Your task to perform on an android device: Open Chrome and go to settings Image 0: 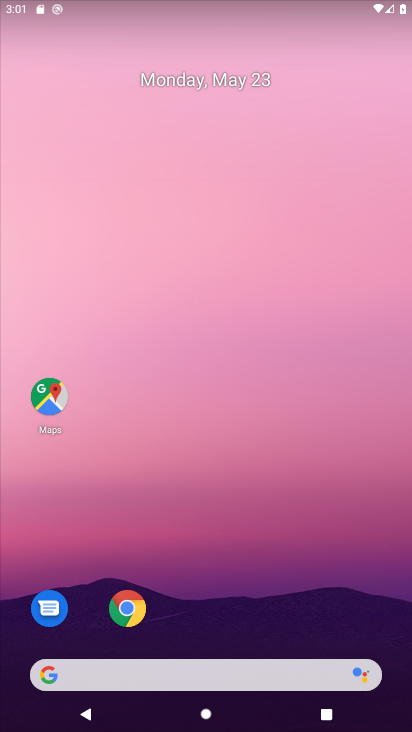
Step 0: click (140, 609)
Your task to perform on an android device: Open Chrome and go to settings Image 1: 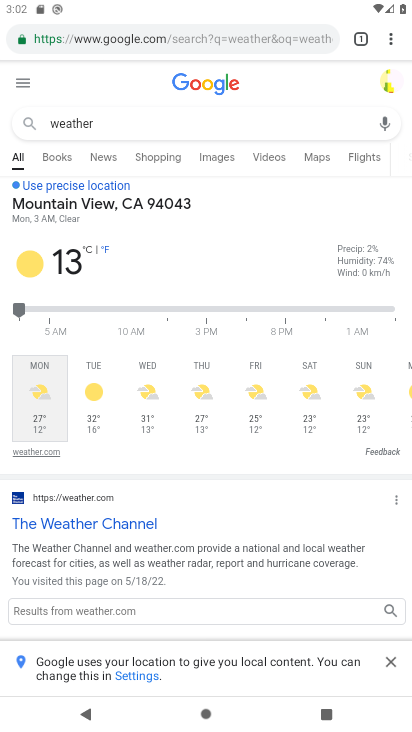
Step 1: click (387, 40)
Your task to perform on an android device: Open Chrome and go to settings Image 2: 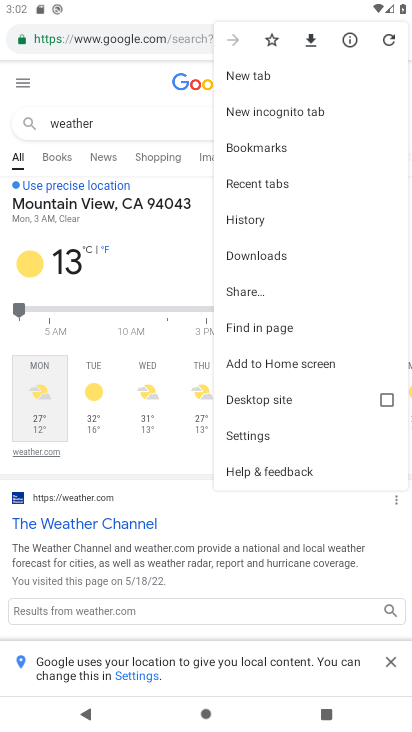
Step 2: click (308, 437)
Your task to perform on an android device: Open Chrome and go to settings Image 3: 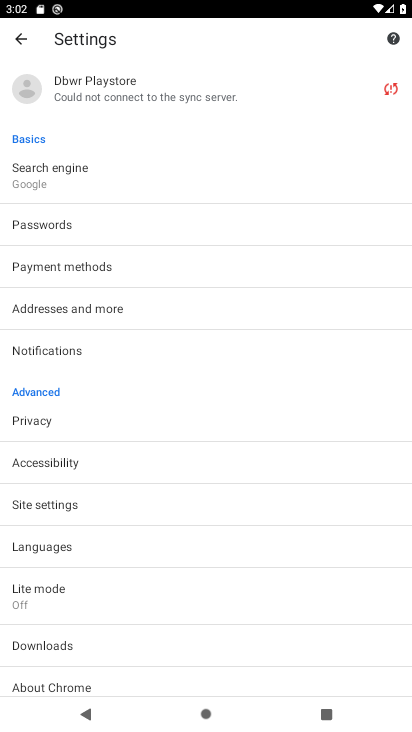
Step 3: task complete